Your task to perform on an android device: toggle wifi Image 0: 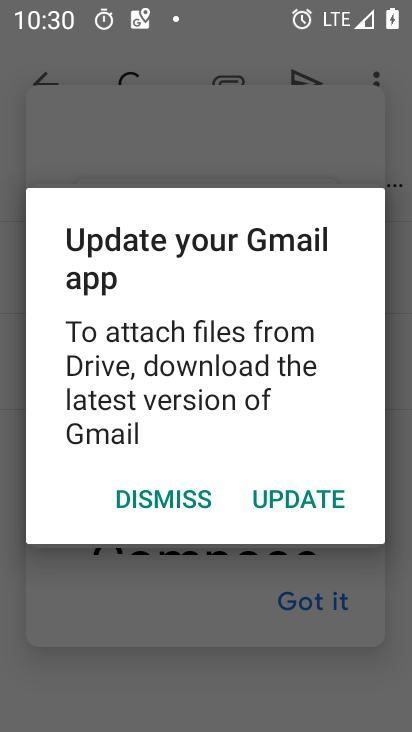
Step 0: press home button
Your task to perform on an android device: toggle wifi Image 1: 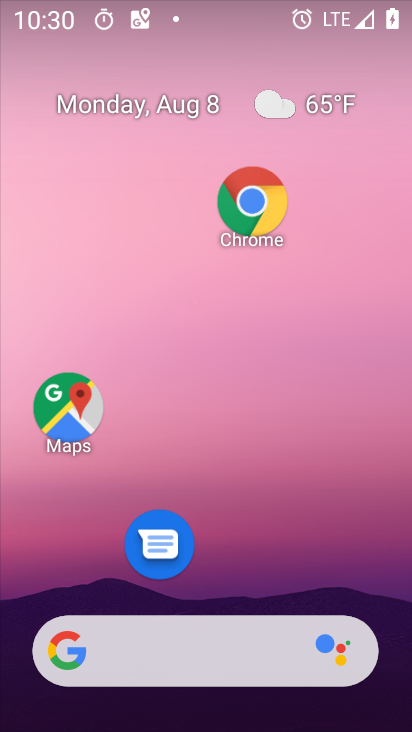
Step 1: drag from (213, 580) to (223, 38)
Your task to perform on an android device: toggle wifi Image 2: 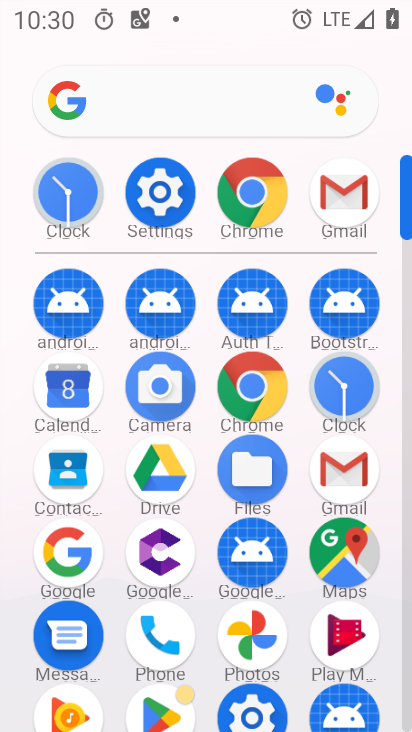
Step 2: click (155, 181)
Your task to perform on an android device: toggle wifi Image 3: 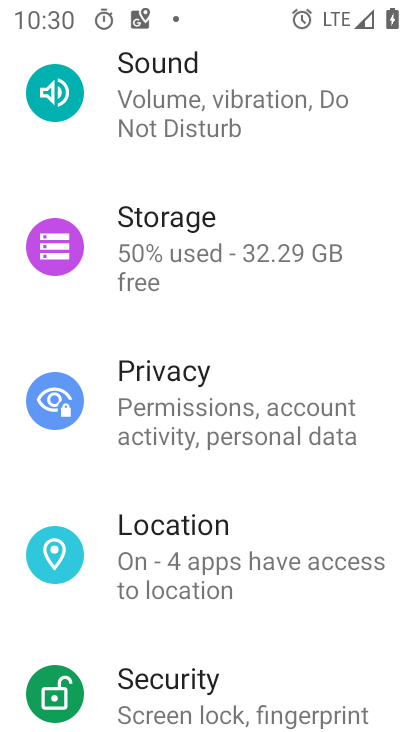
Step 3: drag from (96, 75) to (86, 731)
Your task to perform on an android device: toggle wifi Image 4: 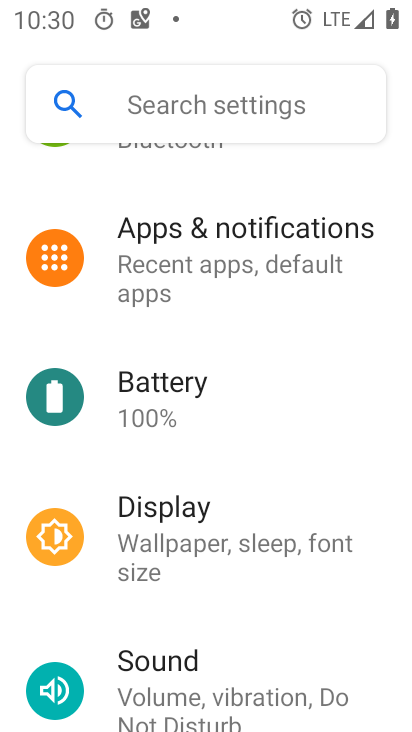
Step 4: drag from (105, 163) to (91, 731)
Your task to perform on an android device: toggle wifi Image 5: 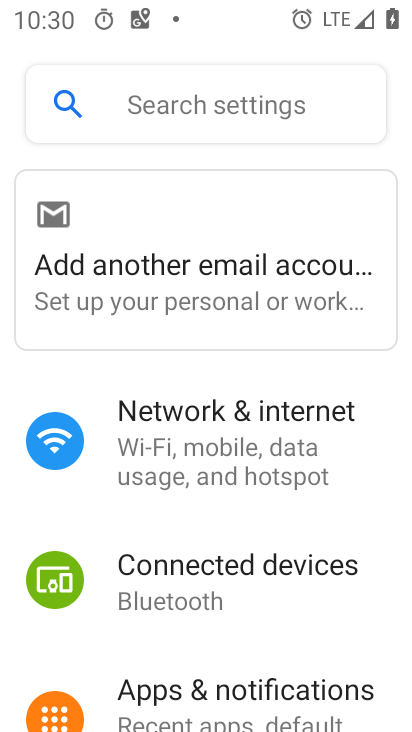
Step 5: click (110, 429)
Your task to perform on an android device: toggle wifi Image 6: 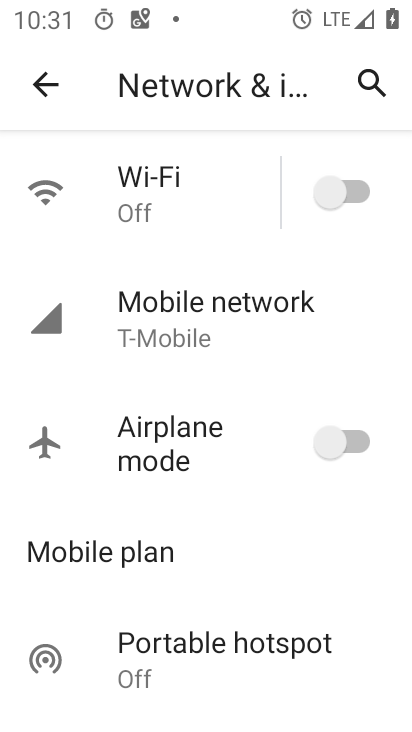
Step 6: click (184, 182)
Your task to perform on an android device: toggle wifi Image 7: 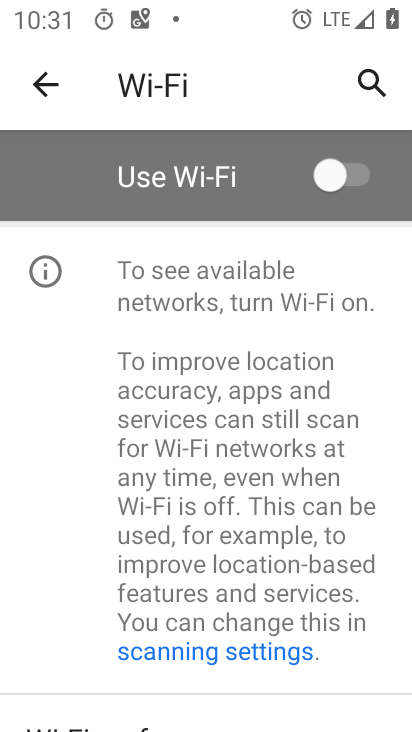
Step 7: click (343, 172)
Your task to perform on an android device: toggle wifi Image 8: 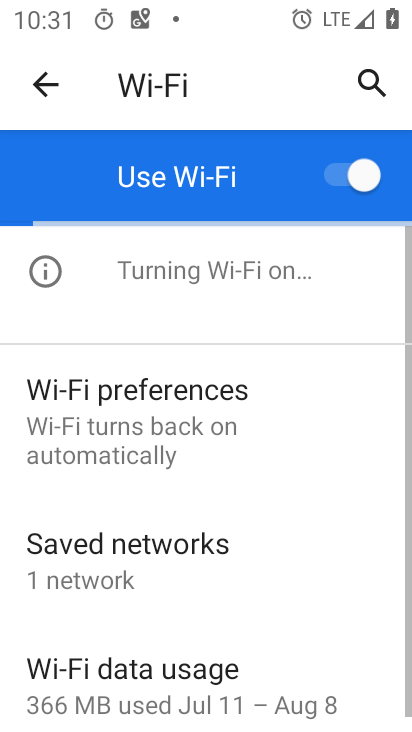
Step 8: task complete